Your task to perform on an android device: Add bose soundsport free to the cart on costco.com Image 0: 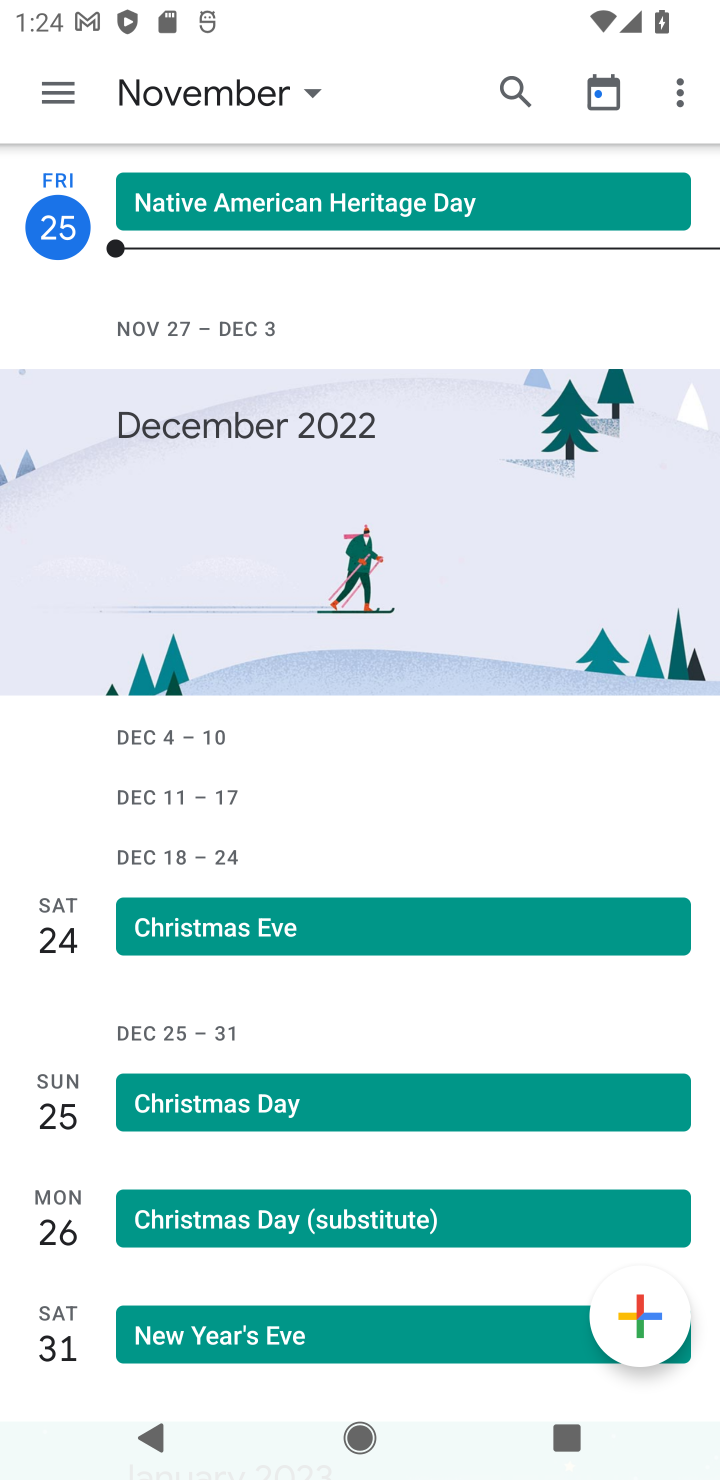
Step 0: press home button
Your task to perform on an android device: Add bose soundsport free to the cart on costco.com Image 1: 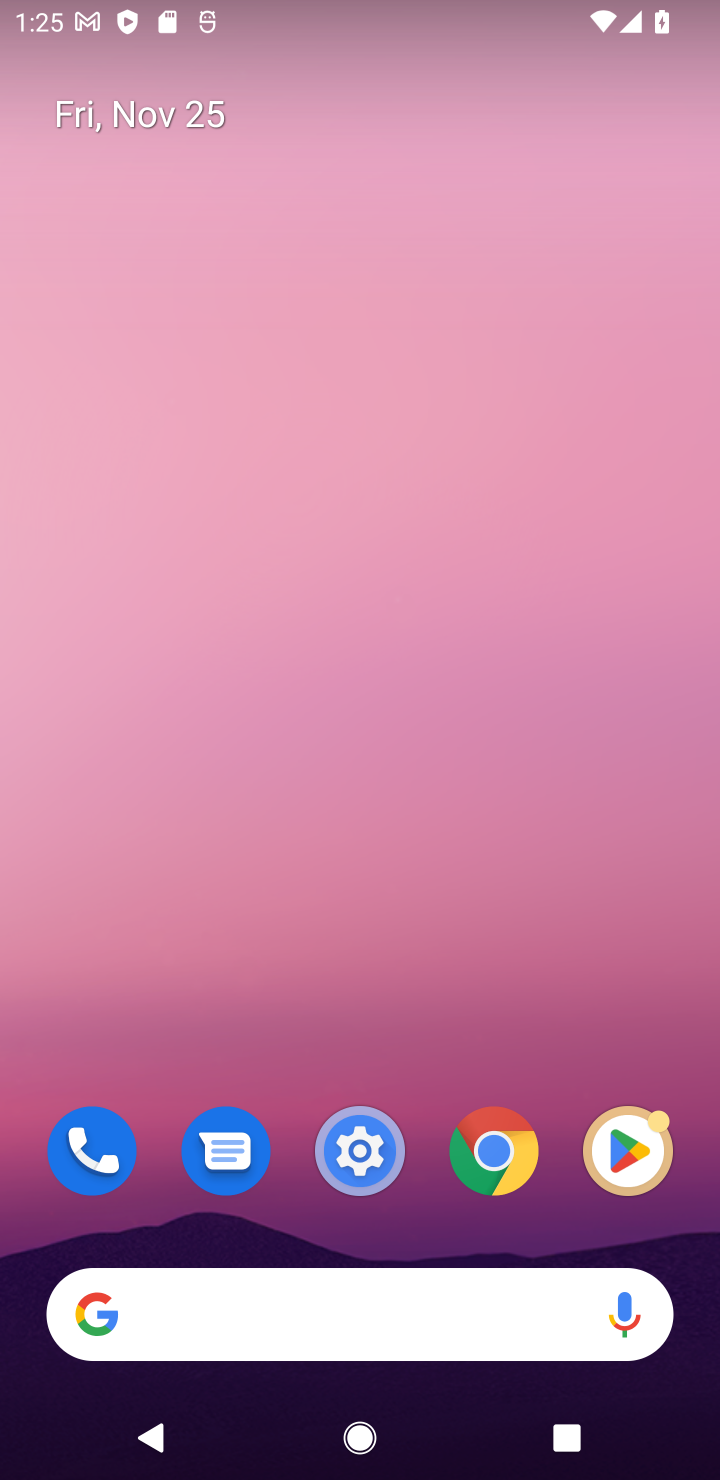
Step 1: click (298, 1322)
Your task to perform on an android device: Add bose soundsport free to the cart on costco.com Image 2: 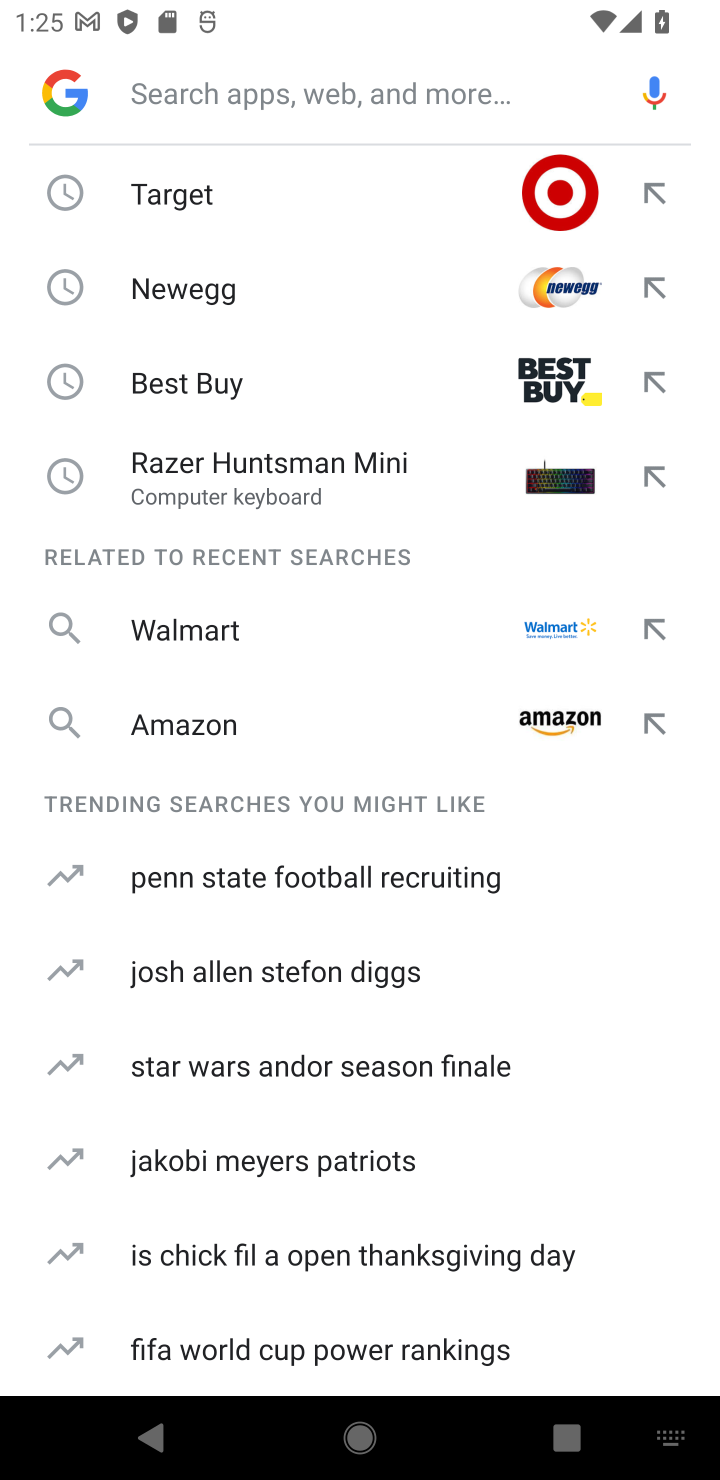
Step 2: type "costco"
Your task to perform on an android device: Add bose soundsport free to the cart on costco.com Image 3: 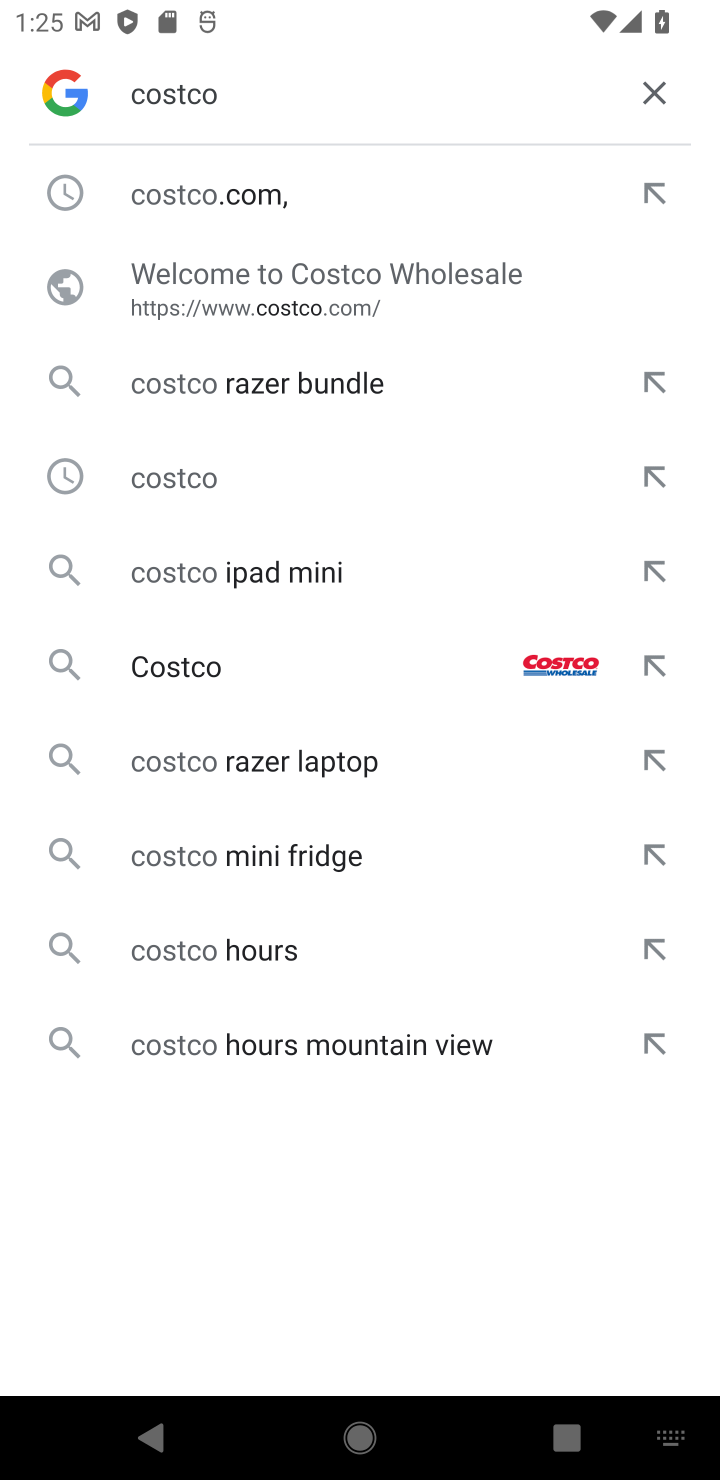
Step 3: click (309, 640)
Your task to perform on an android device: Add bose soundsport free to the cart on costco.com Image 4: 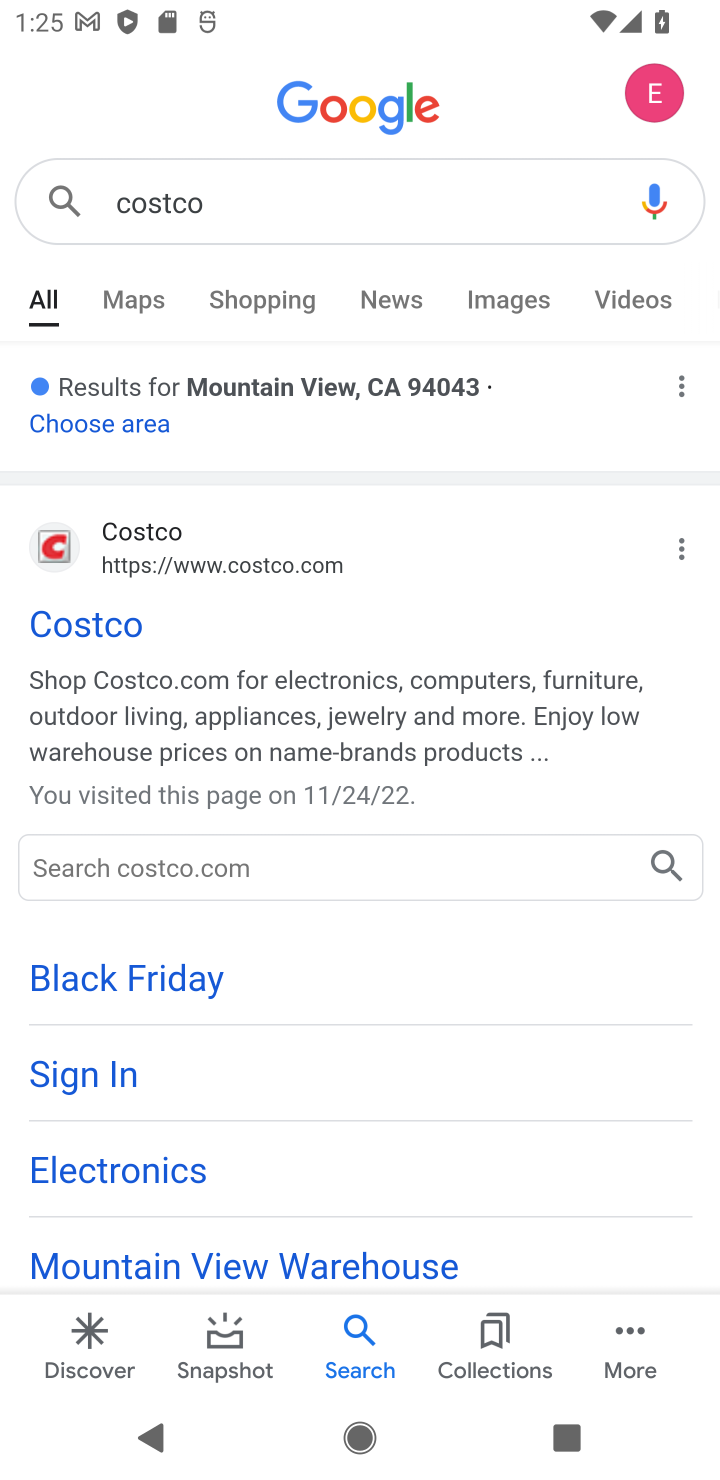
Step 4: click (148, 597)
Your task to perform on an android device: Add bose soundsport free to the cart on costco.com Image 5: 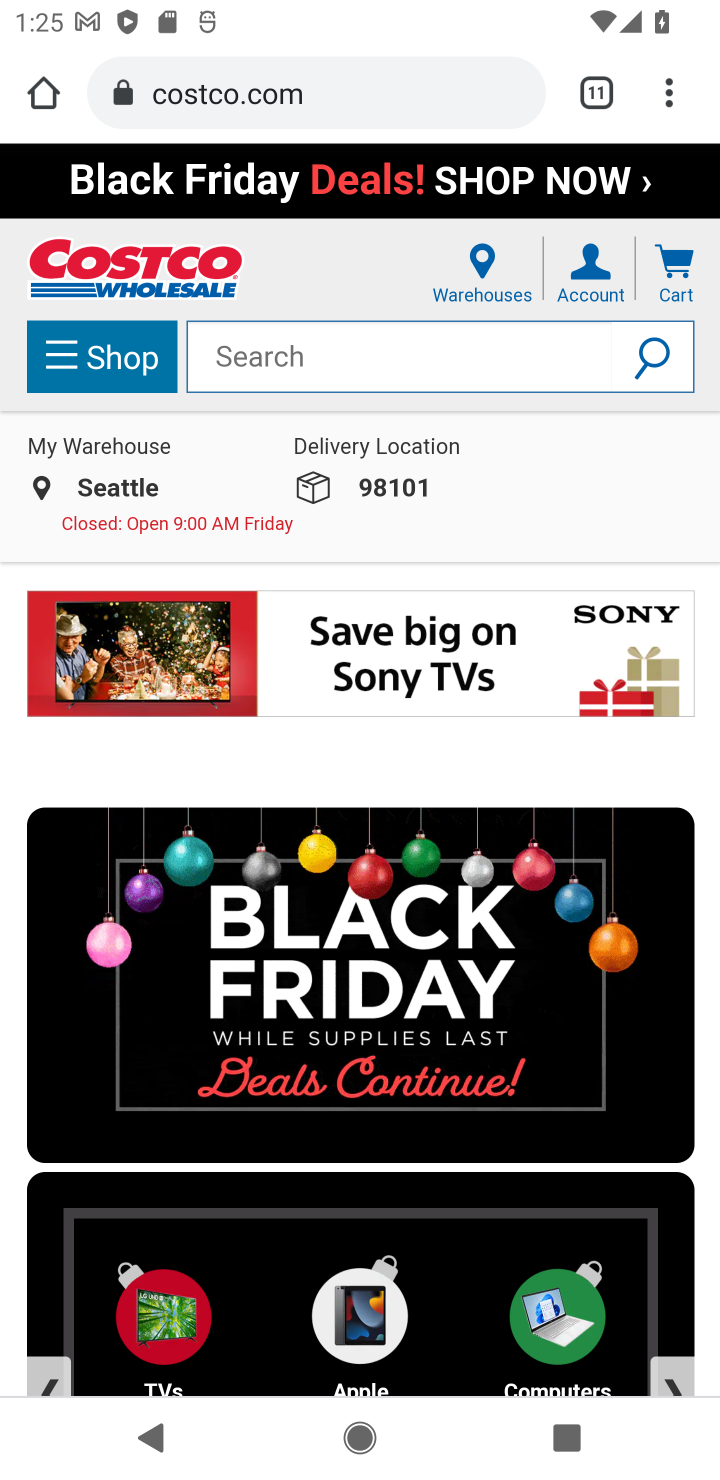
Step 5: click (325, 339)
Your task to perform on an android device: Add bose soundsport free to the cart on costco.com Image 6: 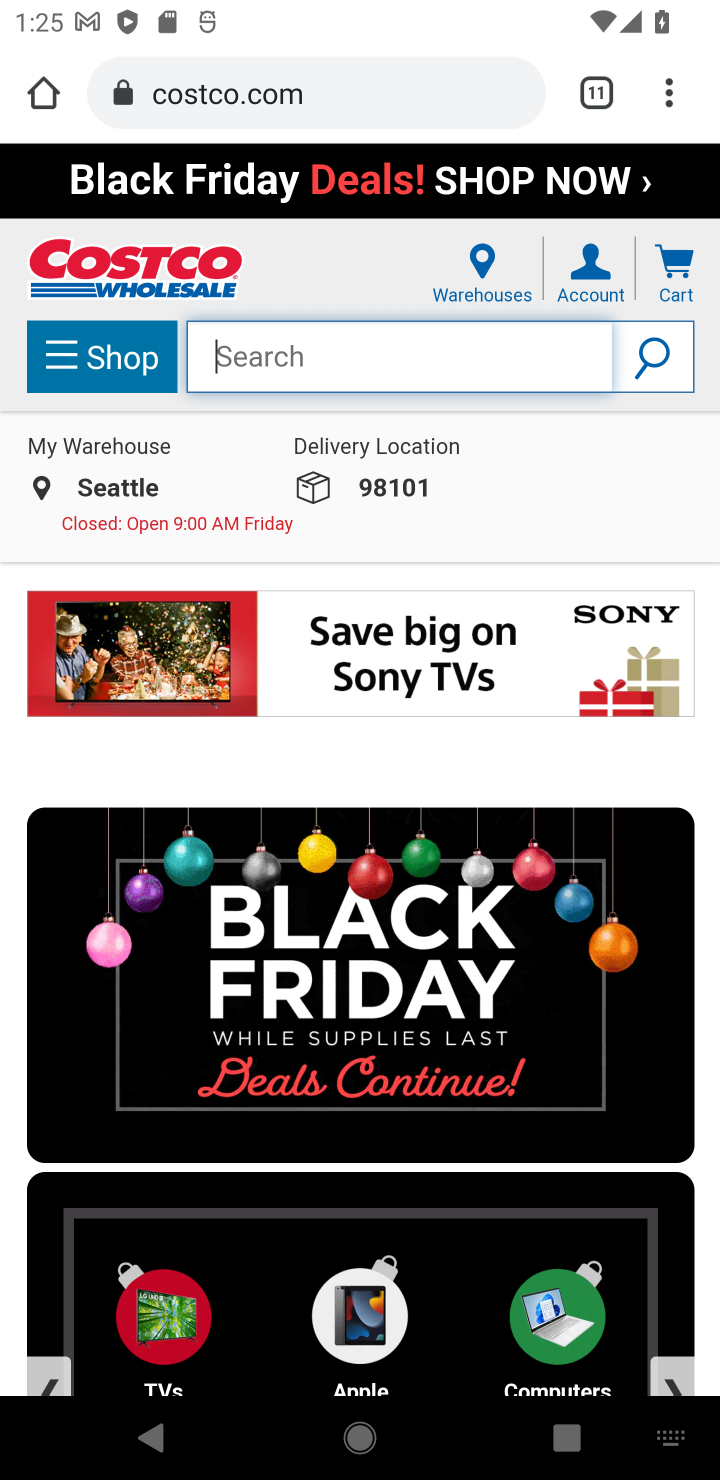
Step 6: type "bose soundsport"
Your task to perform on an android device: Add bose soundsport free to the cart on costco.com Image 7: 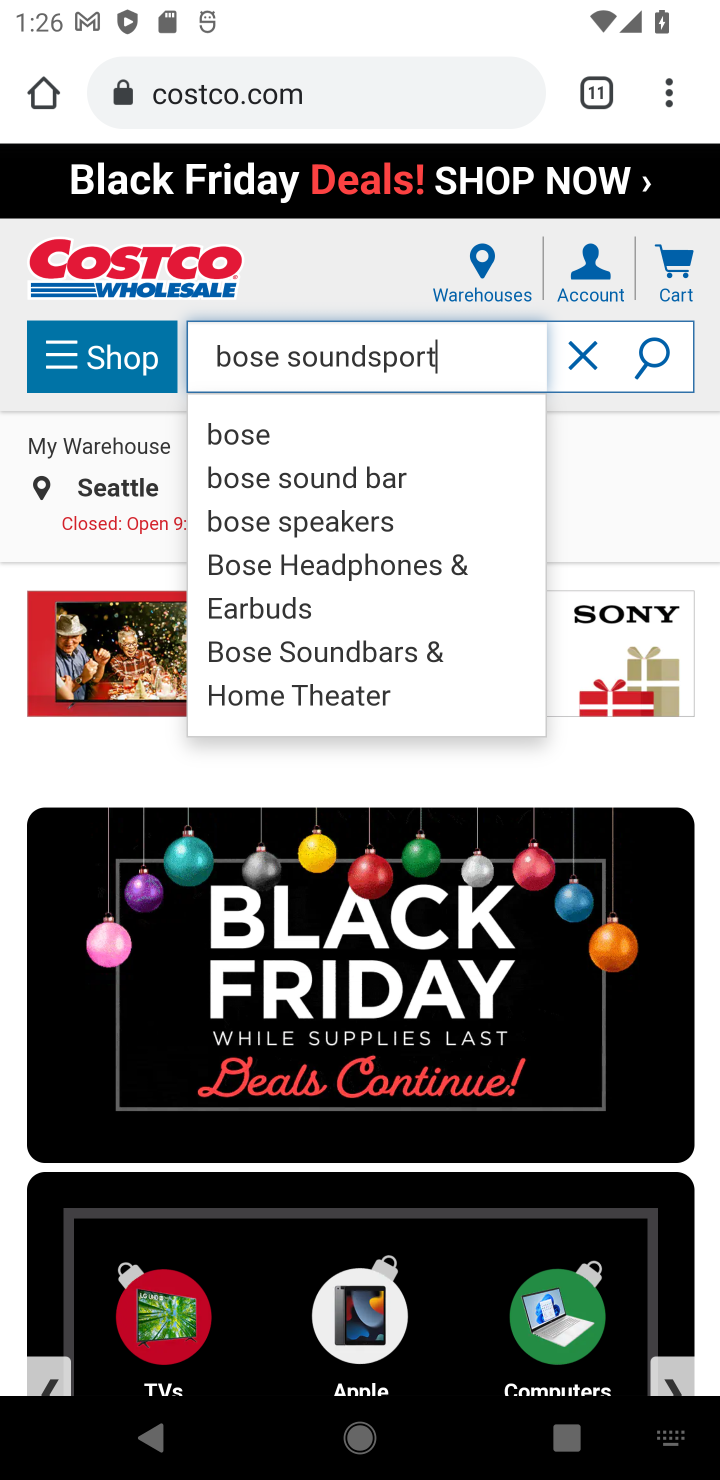
Step 7: click (631, 367)
Your task to perform on an android device: Add bose soundsport free to the cart on costco.com Image 8: 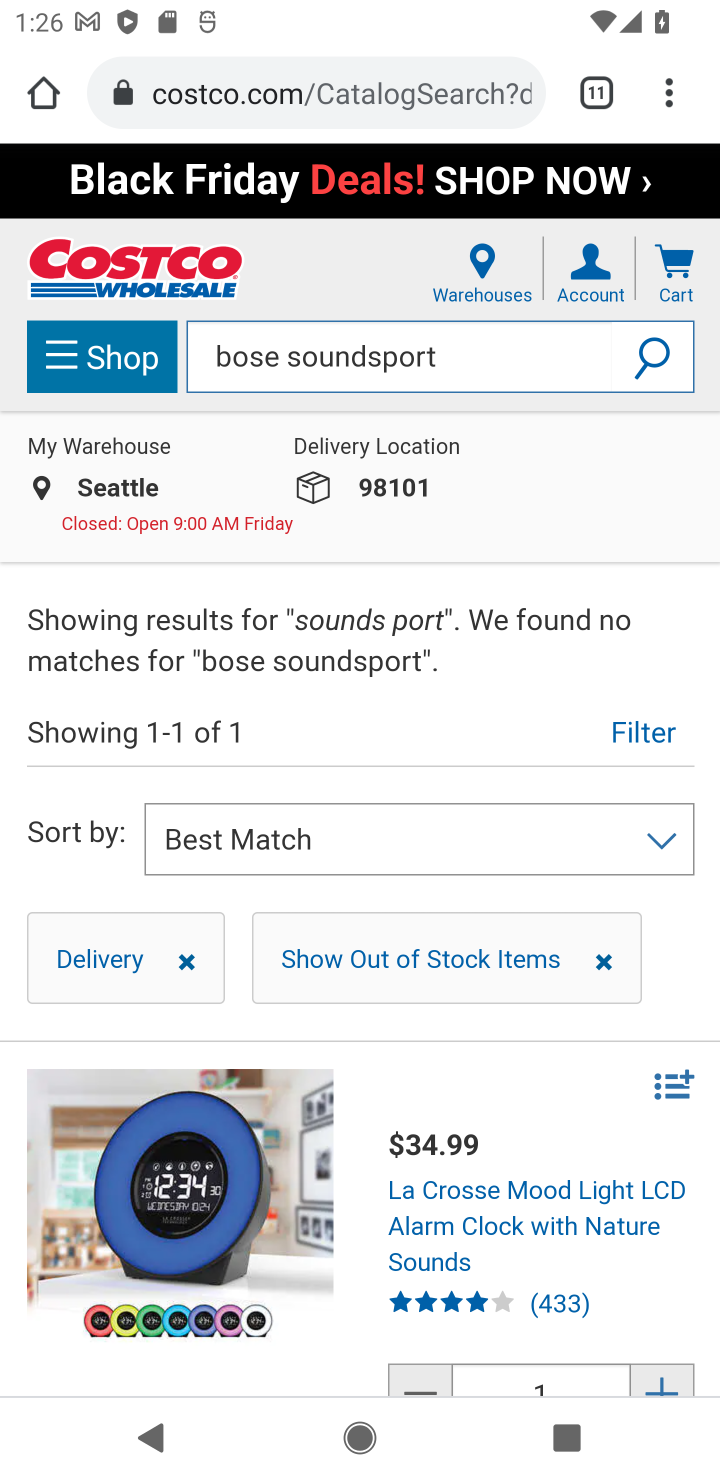
Step 8: drag from (542, 1084) to (486, 640)
Your task to perform on an android device: Add bose soundsport free to the cart on costco.com Image 9: 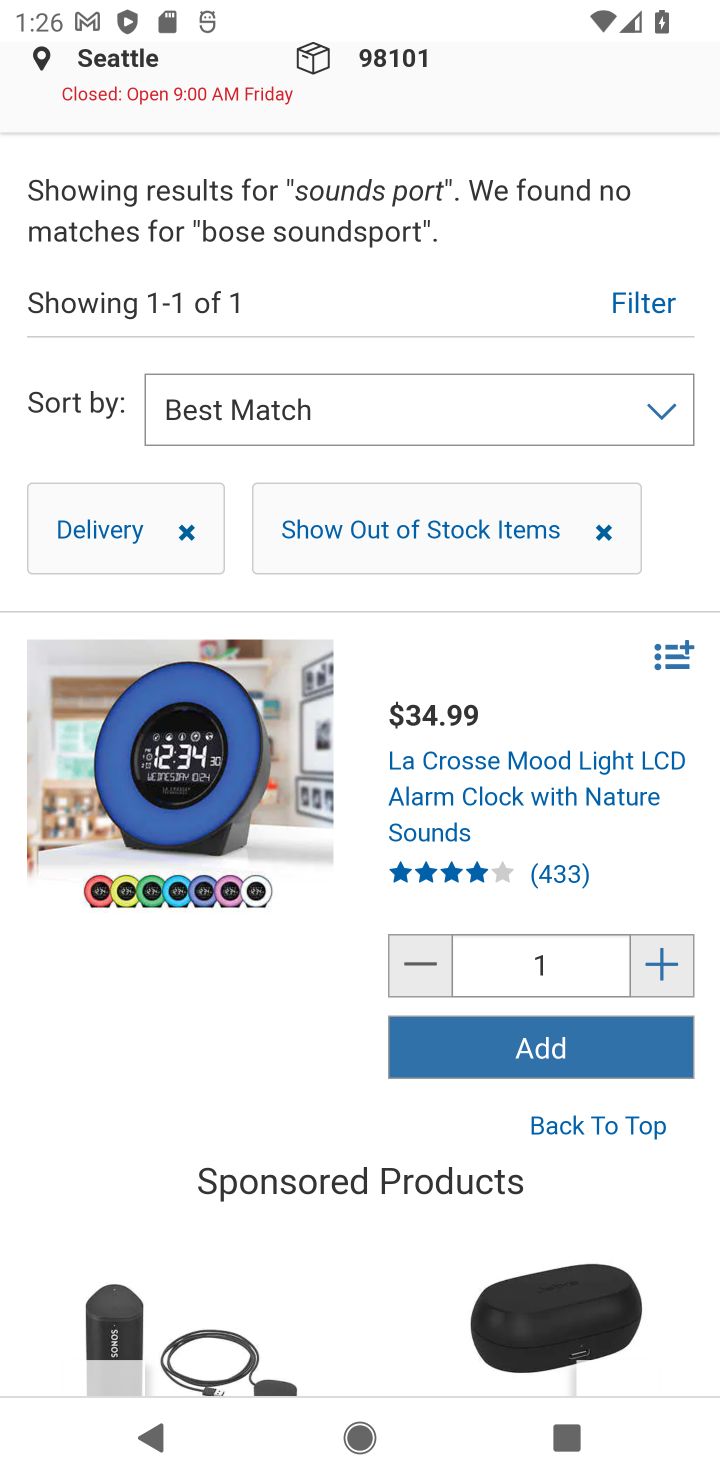
Step 9: click (630, 1042)
Your task to perform on an android device: Add bose soundsport free to the cart on costco.com Image 10: 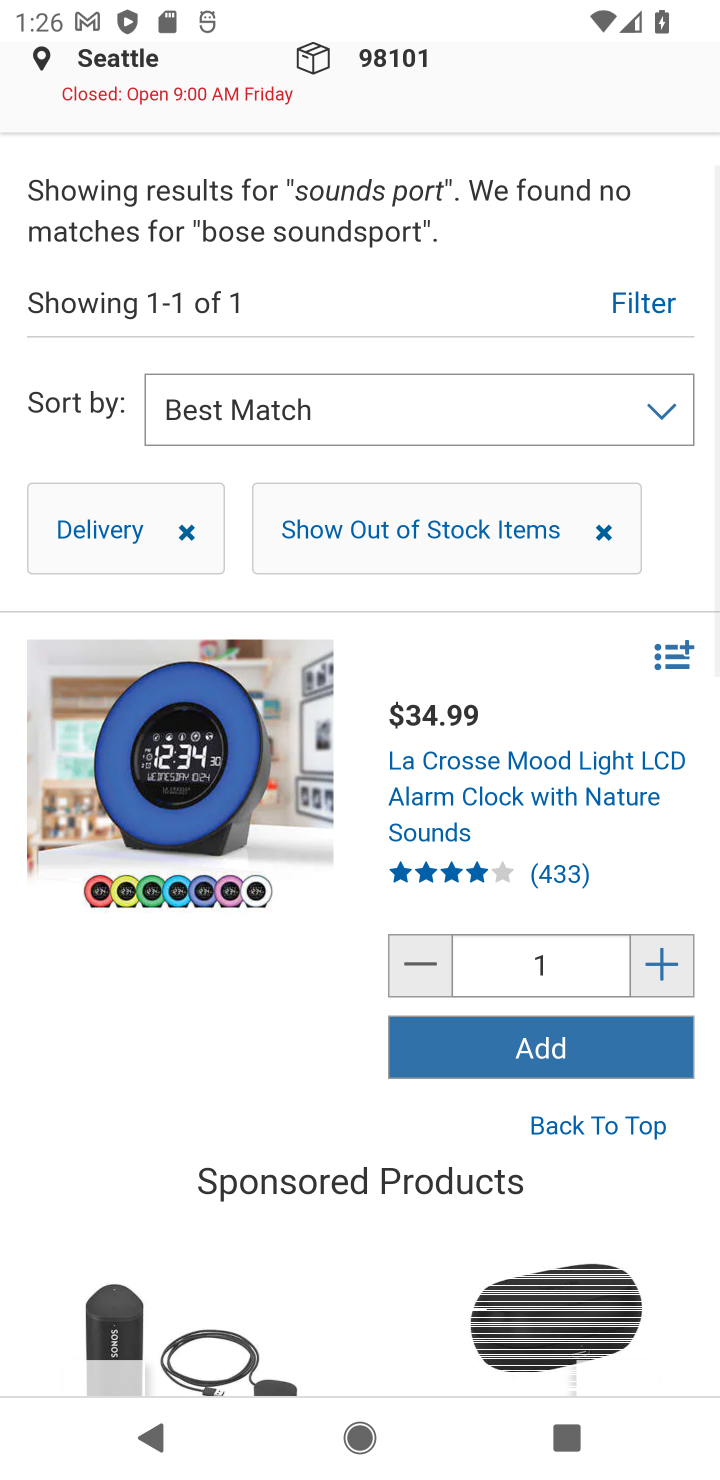
Step 10: task complete